Your task to perform on an android device: change your default location settings in chrome Image 0: 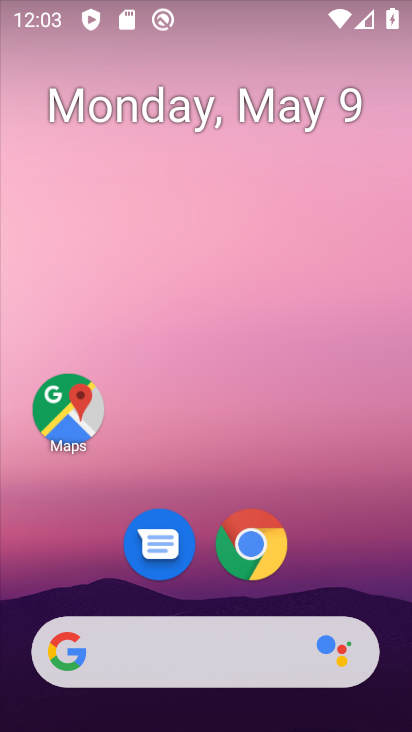
Step 0: drag from (366, 529) to (144, 2)
Your task to perform on an android device: change your default location settings in chrome Image 1: 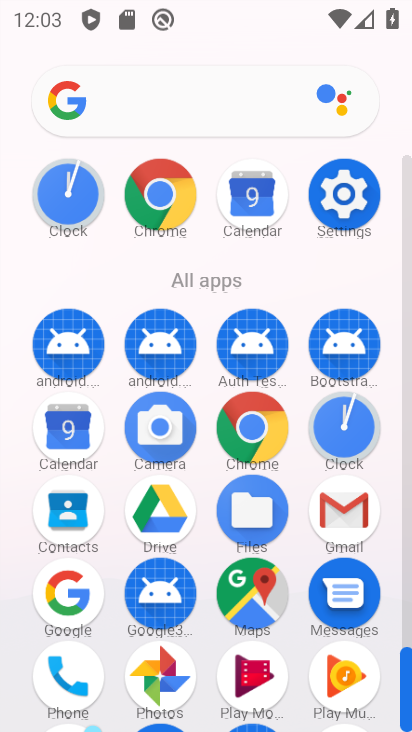
Step 1: click (180, 216)
Your task to perform on an android device: change your default location settings in chrome Image 2: 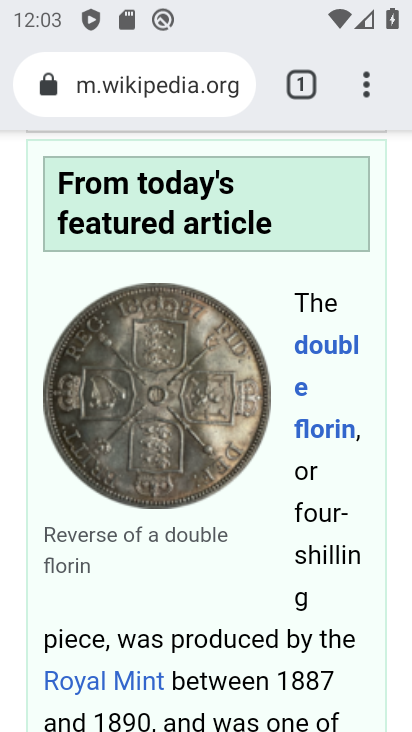
Step 2: drag from (364, 81) to (182, 594)
Your task to perform on an android device: change your default location settings in chrome Image 3: 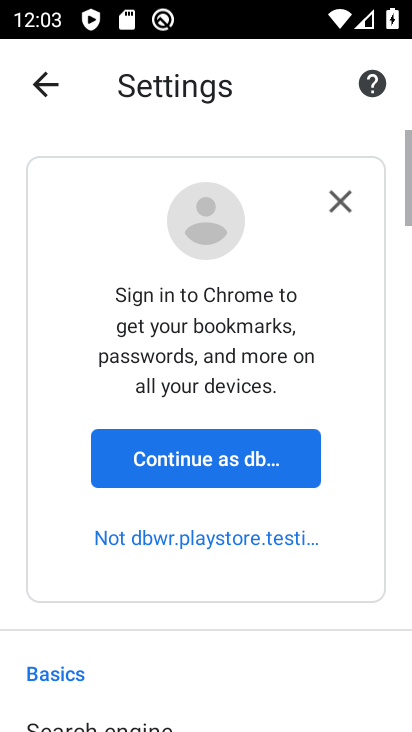
Step 3: drag from (183, 596) to (197, 164)
Your task to perform on an android device: change your default location settings in chrome Image 4: 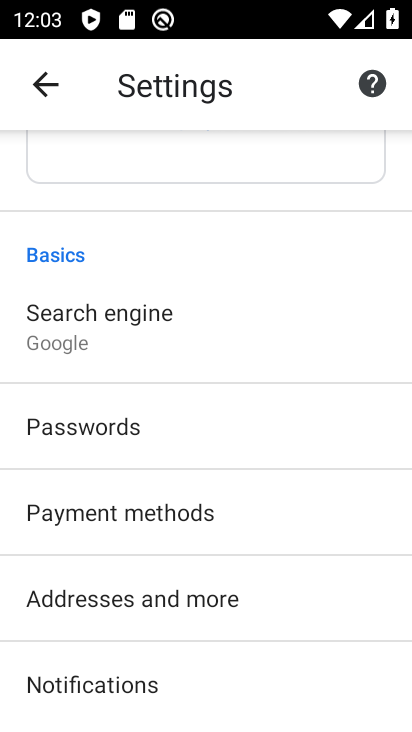
Step 4: drag from (210, 592) to (229, 250)
Your task to perform on an android device: change your default location settings in chrome Image 5: 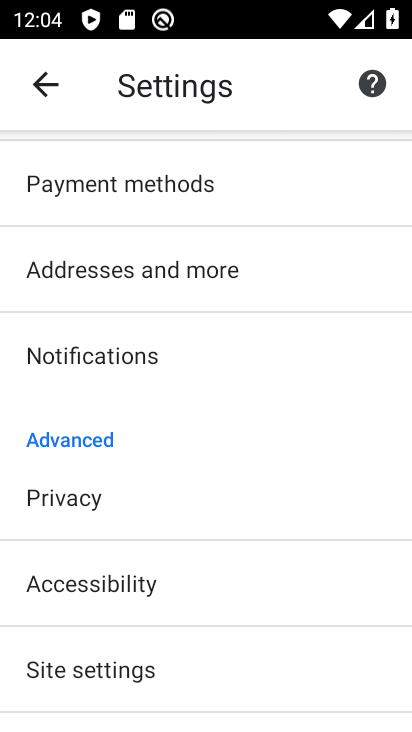
Step 5: drag from (238, 659) to (335, 253)
Your task to perform on an android device: change your default location settings in chrome Image 6: 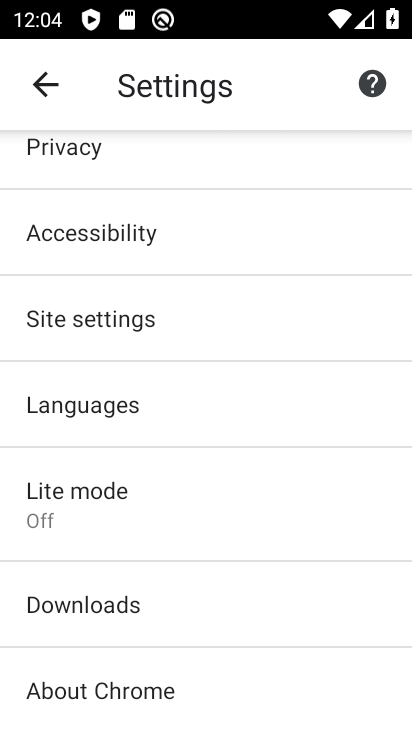
Step 6: click (182, 325)
Your task to perform on an android device: change your default location settings in chrome Image 7: 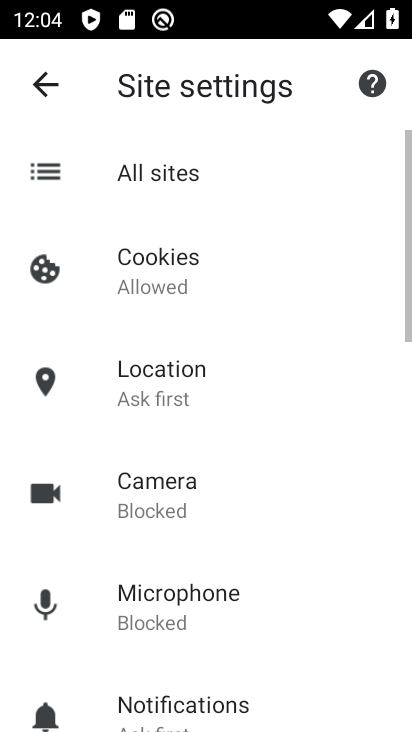
Step 7: click (184, 388)
Your task to perform on an android device: change your default location settings in chrome Image 8: 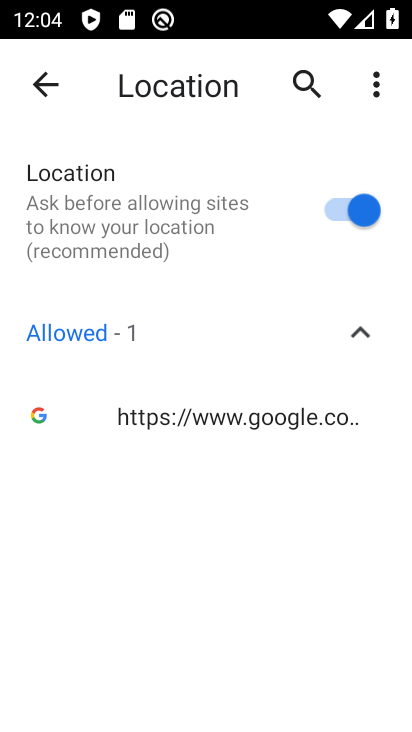
Step 8: click (328, 211)
Your task to perform on an android device: change your default location settings in chrome Image 9: 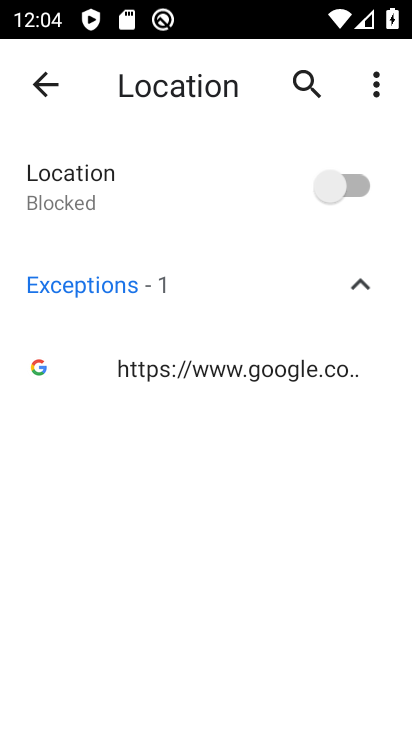
Step 9: task complete